Your task to perform on an android device: change the clock display to analog Image 0: 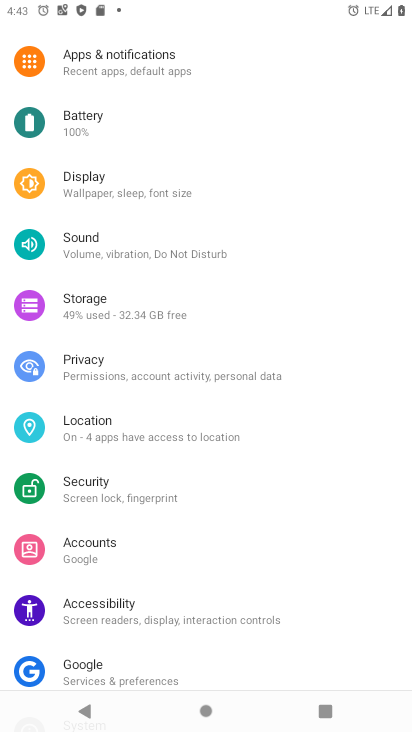
Step 0: press home button
Your task to perform on an android device: change the clock display to analog Image 1: 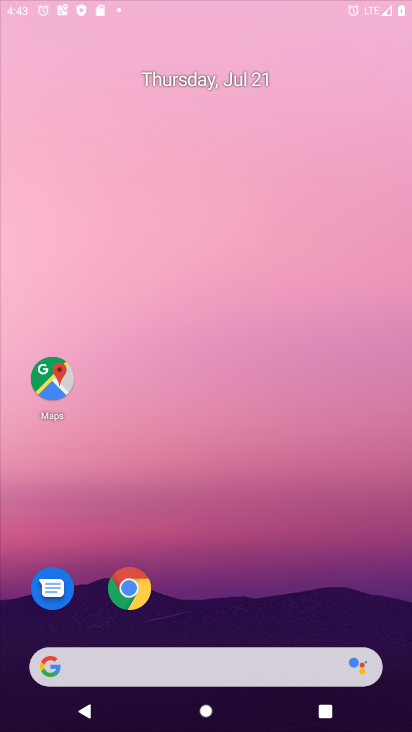
Step 1: drag from (217, 640) to (226, 21)
Your task to perform on an android device: change the clock display to analog Image 2: 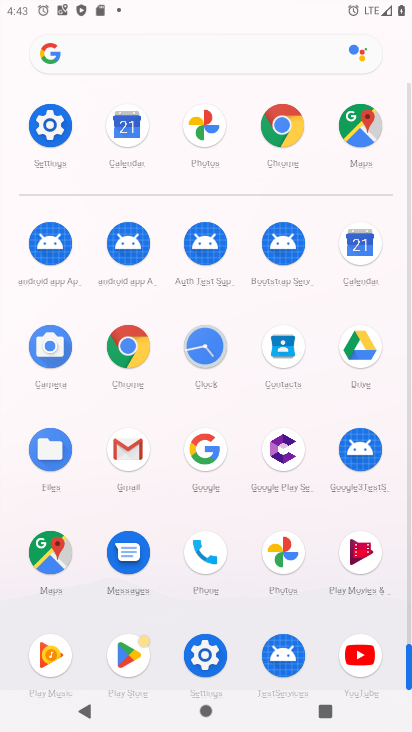
Step 2: click (221, 362)
Your task to perform on an android device: change the clock display to analog Image 3: 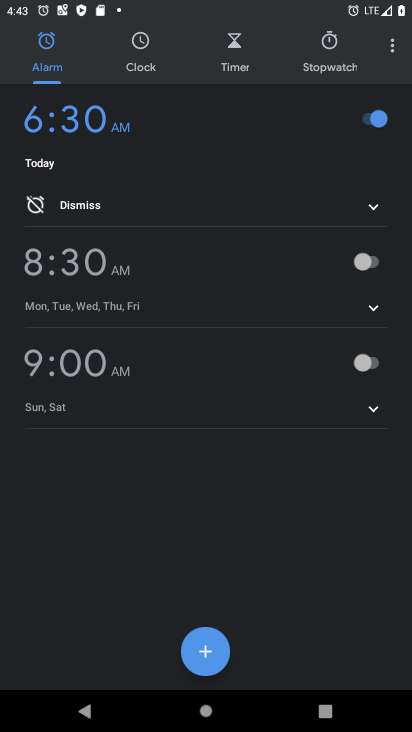
Step 3: click (398, 50)
Your task to perform on an android device: change the clock display to analog Image 4: 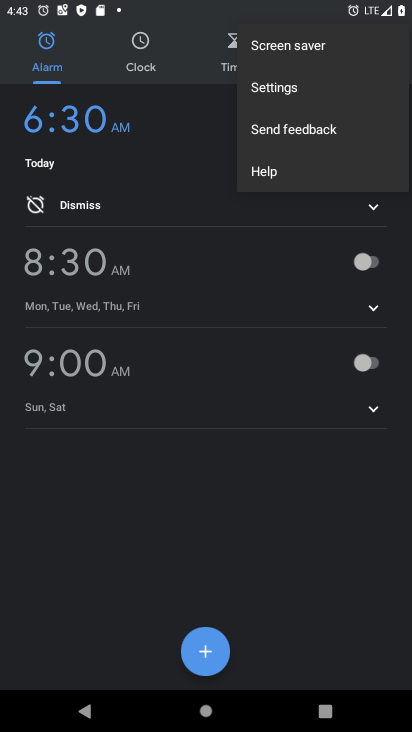
Step 4: click (300, 80)
Your task to perform on an android device: change the clock display to analog Image 5: 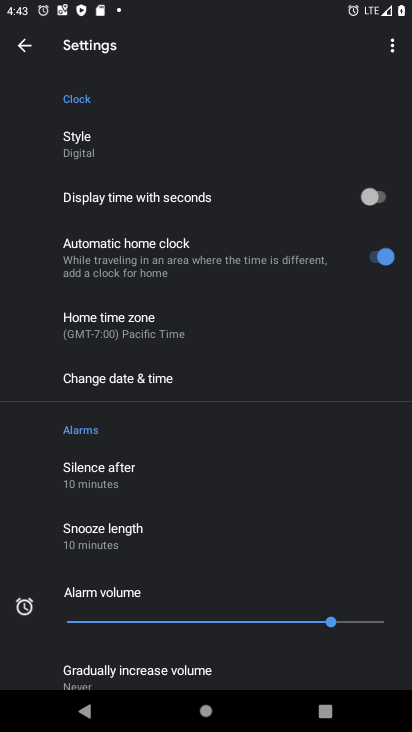
Step 5: click (96, 133)
Your task to perform on an android device: change the clock display to analog Image 6: 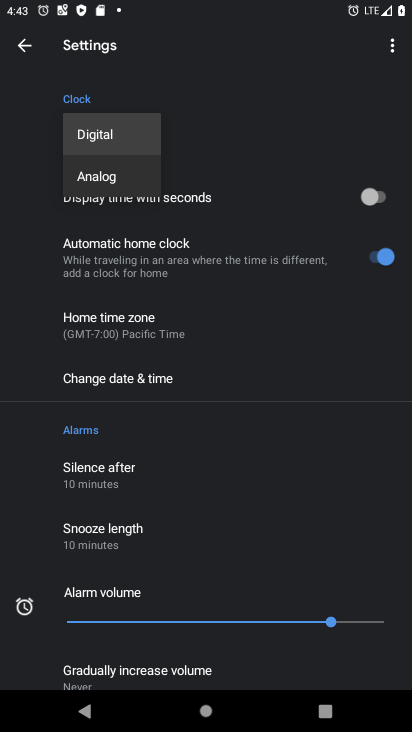
Step 6: click (96, 182)
Your task to perform on an android device: change the clock display to analog Image 7: 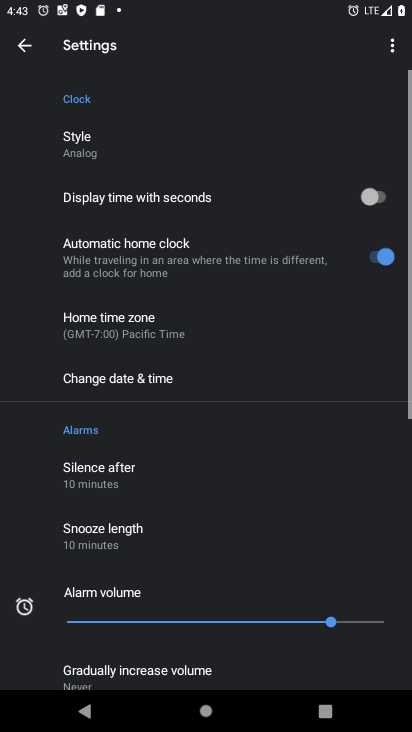
Step 7: task complete